Your task to perform on an android device: Open Google Chrome and open the bookmarks view Image 0: 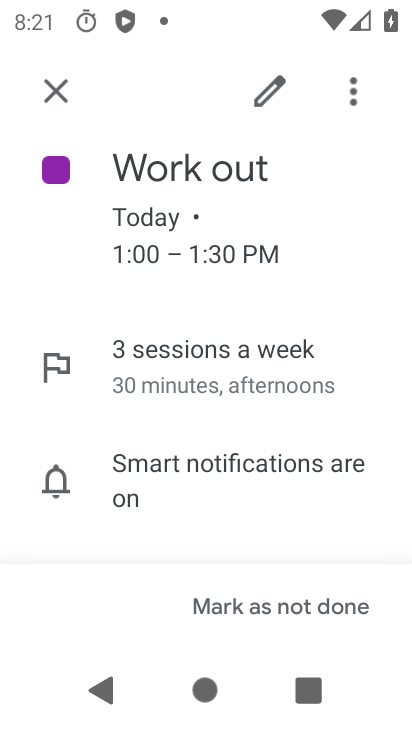
Step 0: press home button
Your task to perform on an android device: Open Google Chrome and open the bookmarks view Image 1: 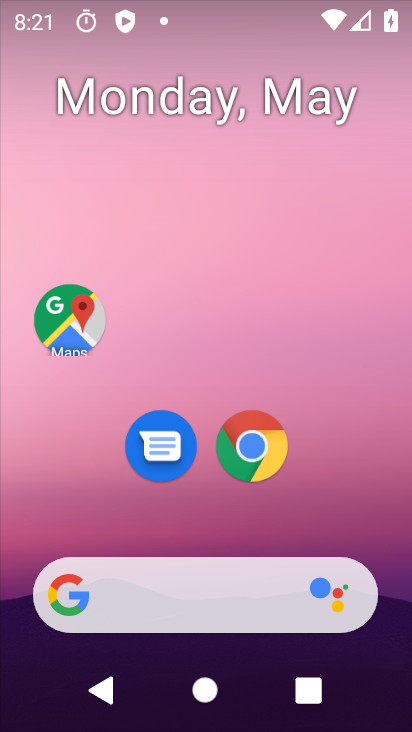
Step 1: click (243, 450)
Your task to perform on an android device: Open Google Chrome and open the bookmarks view Image 2: 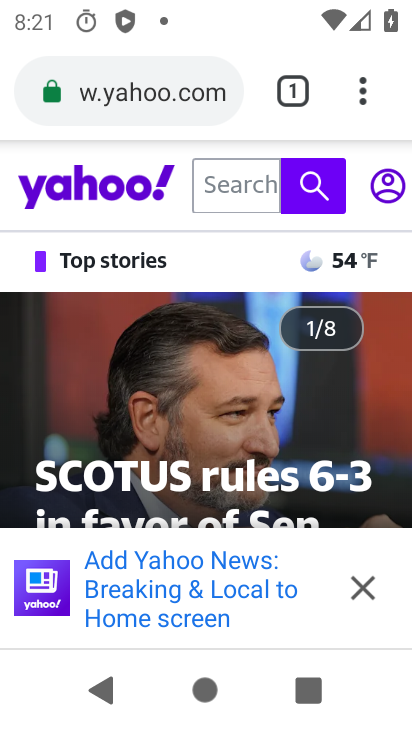
Step 2: click (361, 80)
Your task to perform on an android device: Open Google Chrome and open the bookmarks view Image 3: 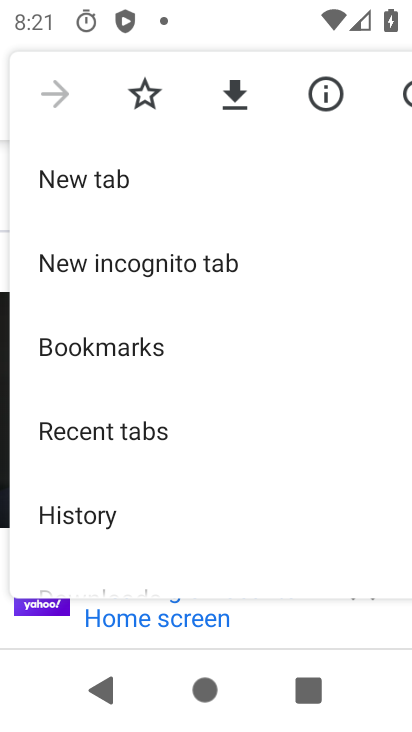
Step 3: click (157, 350)
Your task to perform on an android device: Open Google Chrome and open the bookmarks view Image 4: 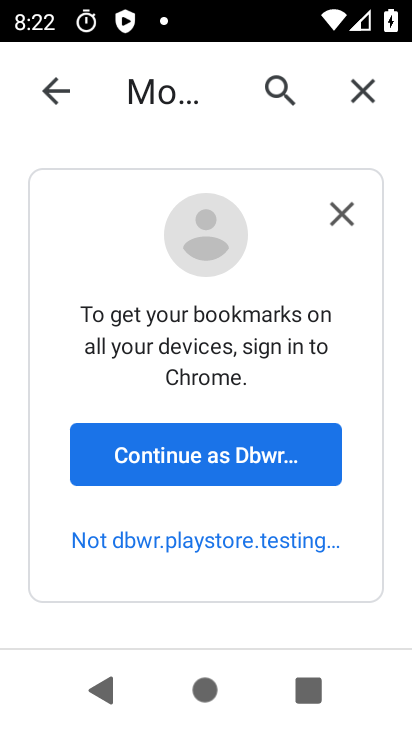
Step 4: click (186, 463)
Your task to perform on an android device: Open Google Chrome and open the bookmarks view Image 5: 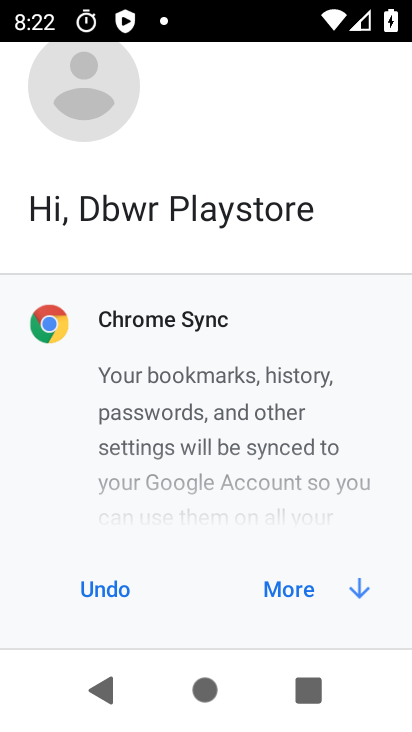
Step 5: click (261, 587)
Your task to perform on an android device: Open Google Chrome and open the bookmarks view Image 6: 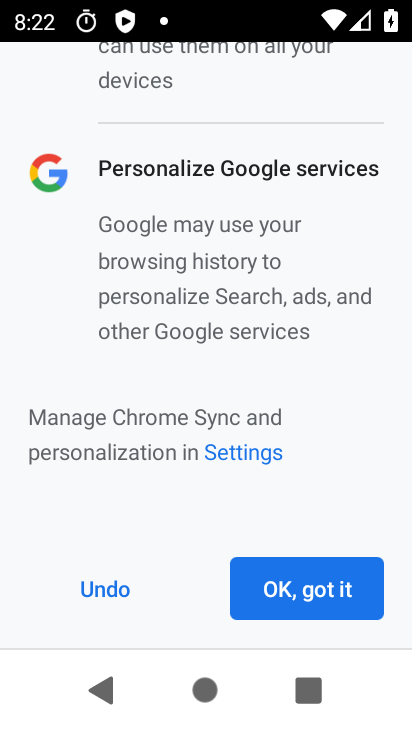
Step 6: click (261, 587)
Your task to perform on an android device: Open Google Chrome and open the bookmarks view Image 7: 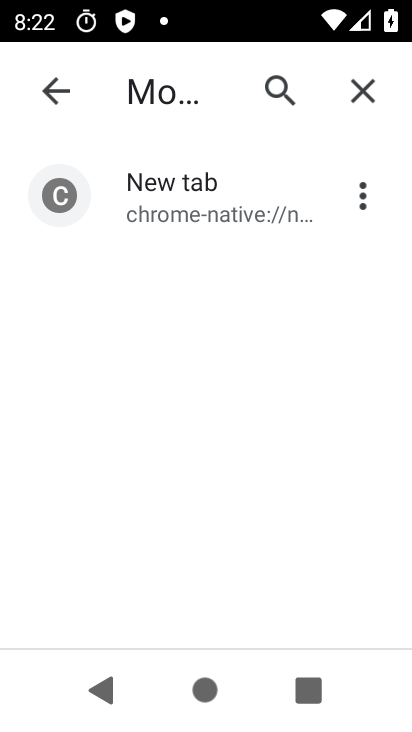
Step 7: task complete